Your task to perform on an android device: Open Maps and search for coffee Image 0: 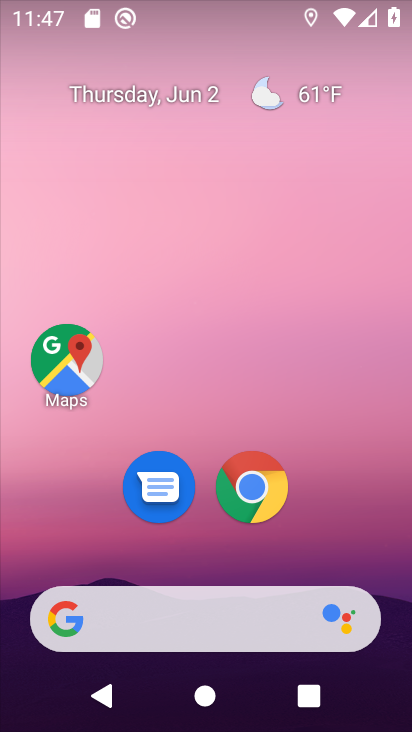
Step 0: click (65, 361)
Your task to perform on an android device: Open Maps and search for coffee Image 1: 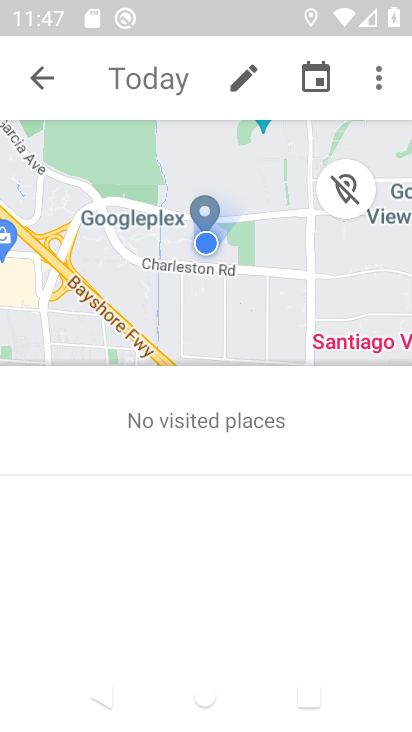
Step 1: press back button
Your task to perform on an android device: Open Maps and search for coffee Image 2: 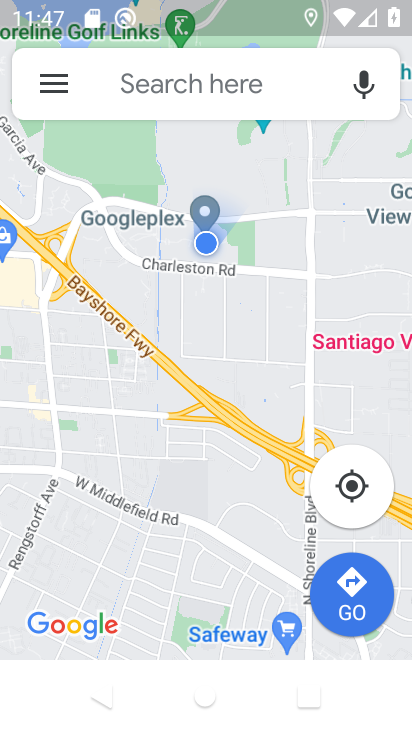
Step 2: click (195, 86)
Your task to perform on an android device: Open Maps and search for coffee Image 3: 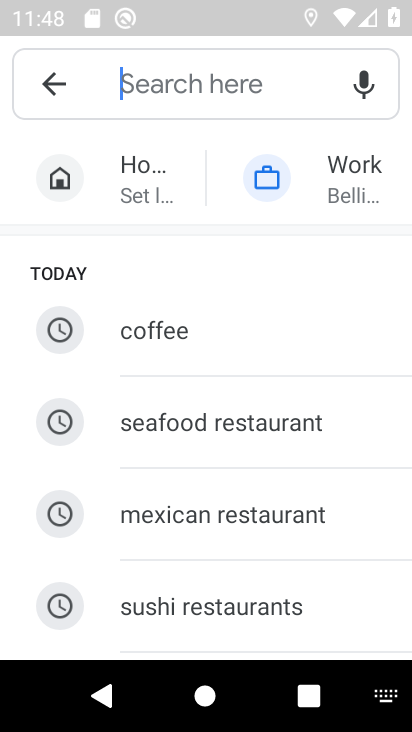
Step 3: type "coffee"
Your task to perform on an android device: Open Maps and search for coffee Image 4: 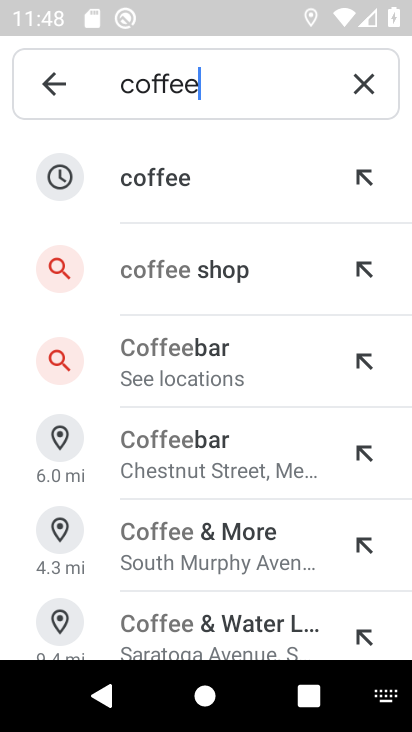
Step 4: click (174, 177)
Your task to perform on an android device: Open Maps and search for coffee Image 5: 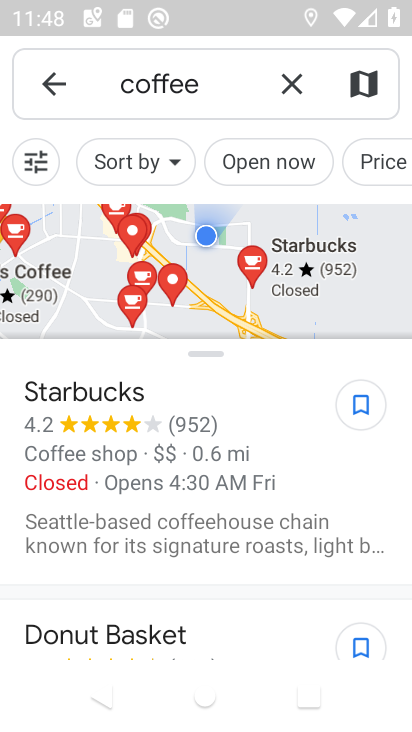
Step 5: task complete